Your task to perform on an android device: turn smart compose on in the gmail app Image 0: 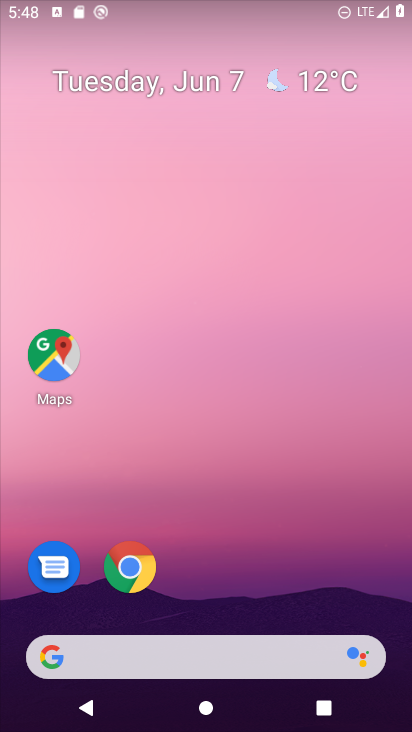
Step 0: drag from (318, 659) to (350, 5)
Your task to perform on an android device: turn smart compose on in the gmail app Image 1: 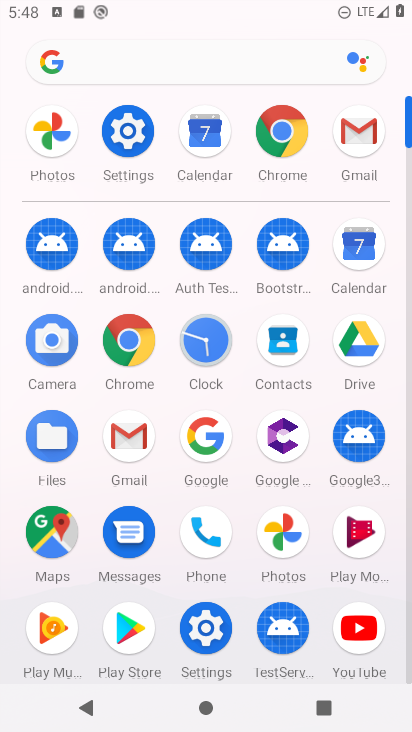
Step 1: click (132, 437)
Your task to perform on an android device: turn smart compose on in the gmail app Image 2: 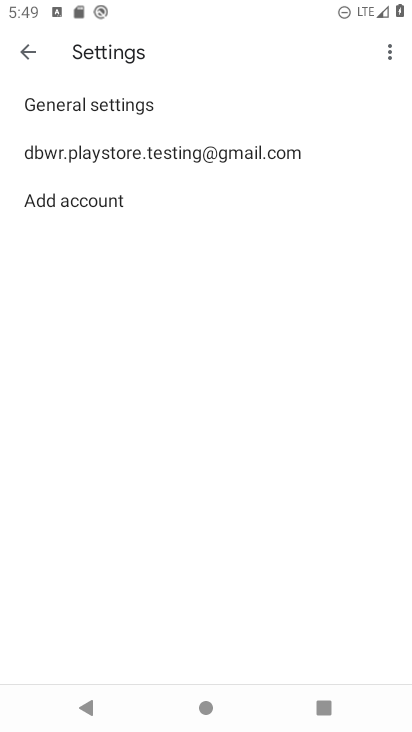
Step 2: click (180, 156)
Your task to perform on an android device: turn smart compose on in the gmail app Image 3: 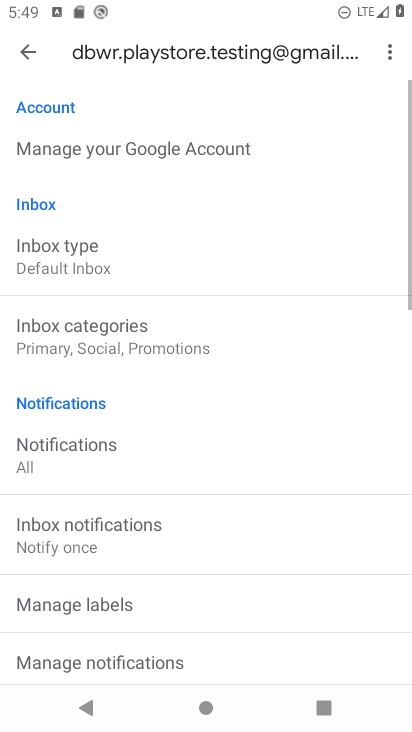
Step 3: task complete